Your task to perform on an android device: Open Reddit.com Image 0: 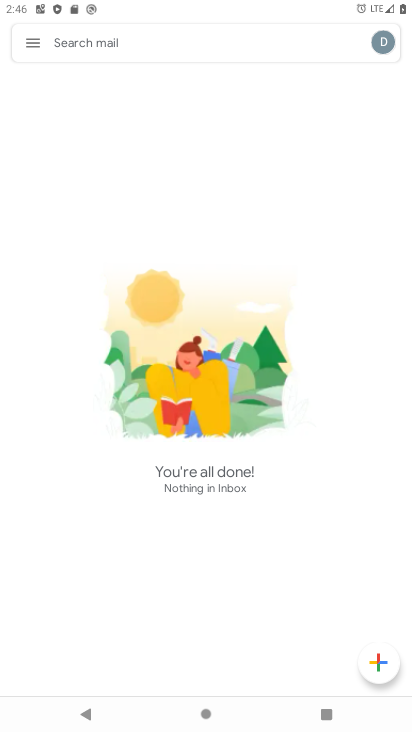
Step 0: press home button
Your task to perform on an android device: Open Reddit.com Image 1: 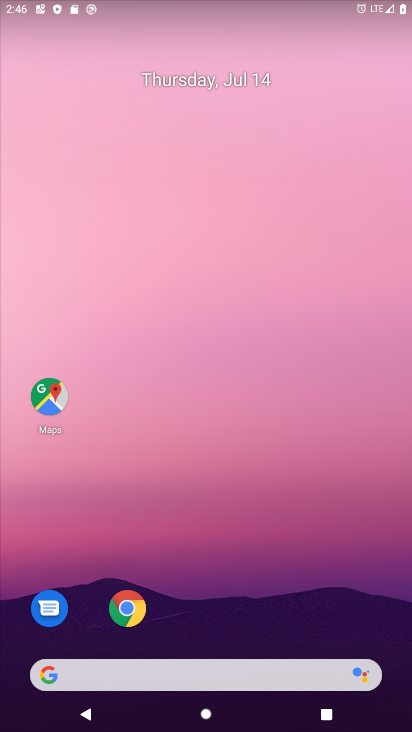
Step 1: click (120, 608)
Your task to perform on an android device: Open Reddit.com Image 2: 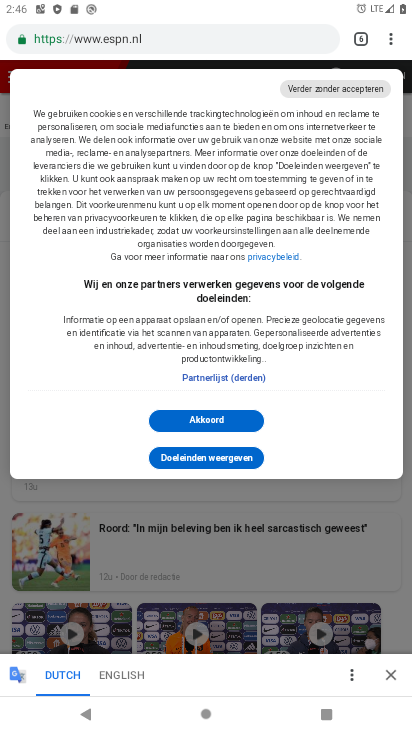
Step 2: click (392, 41)
Your task to perform on an android device: Open Reddit.com Image 3: 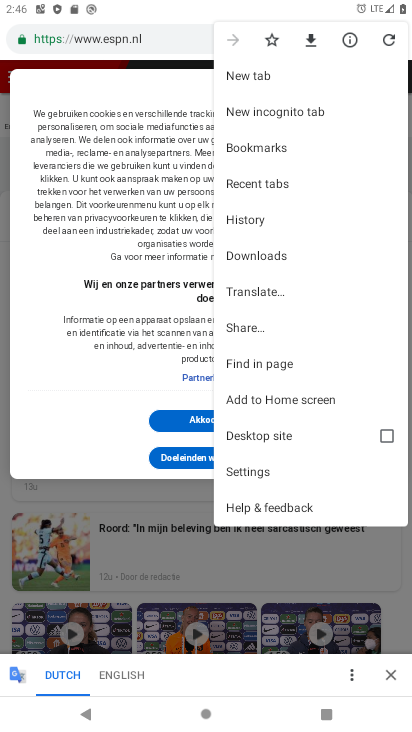
Step 3: click (251, 73)
Your task to perform on an android device: Open Reddit.com Image 4: 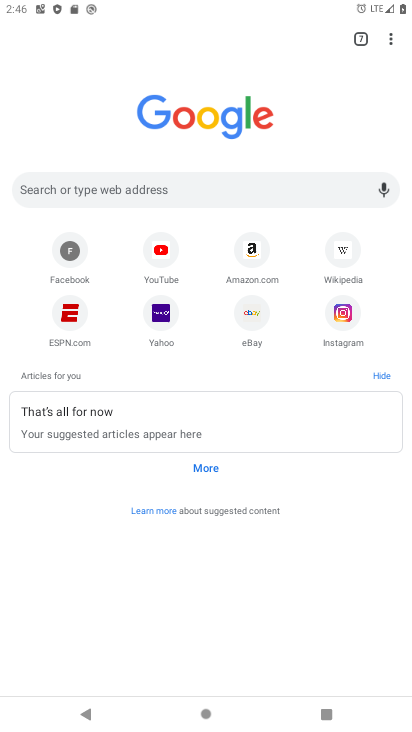
Step 4: click (221, 187)
Your task to perform on an android device: Open Reddit.com Image 5: 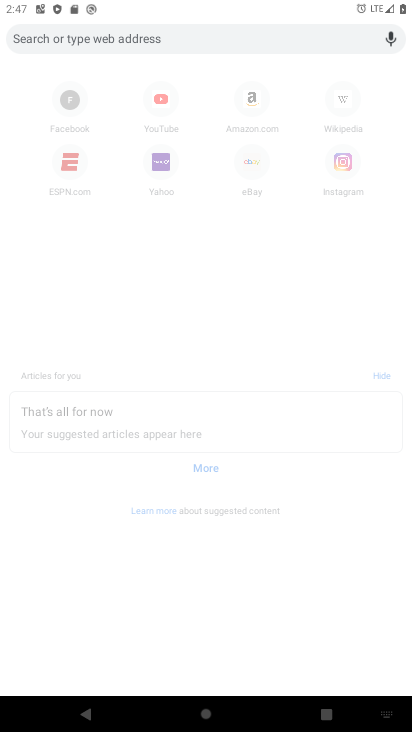
Step 5: type "Reddit.com"
Your task to perform on an android device: Open Reddit.com Image 6: 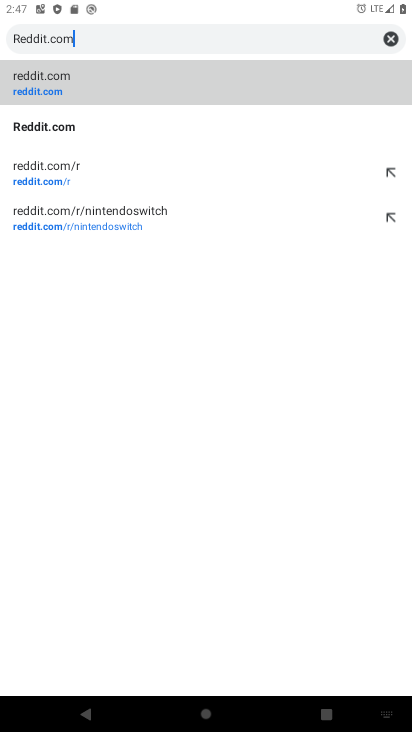
Step 6: type ""
Your task to perform on an android device: Open Reddit.com Image 7: 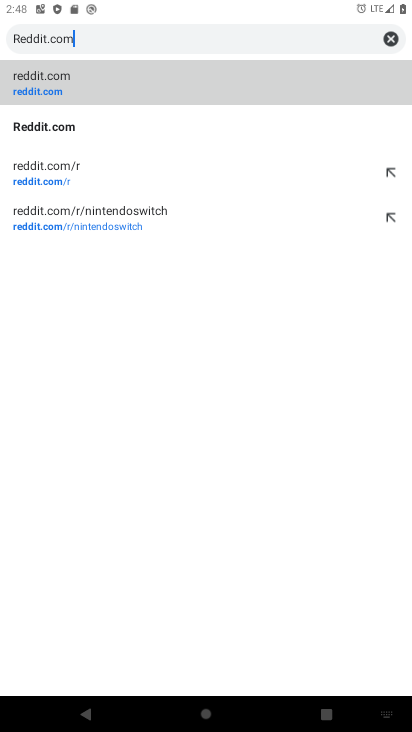
Step 7: click (43, 75)
Your task to perform on an android device: Open Reddit.com Image 8: 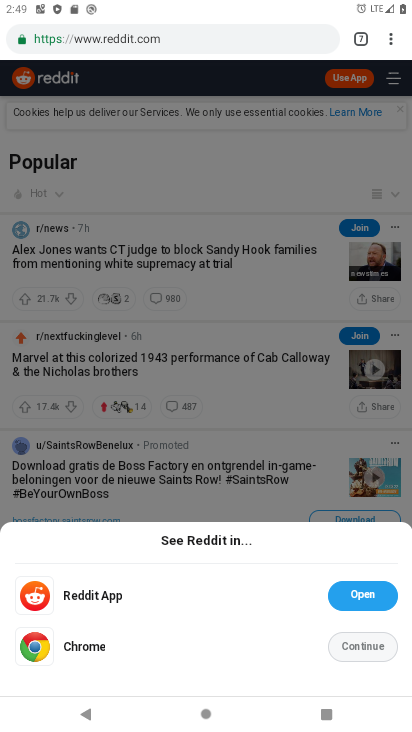
Step 8: task complete